Your task to perform on an android device: When is my next meeting? Image 0: 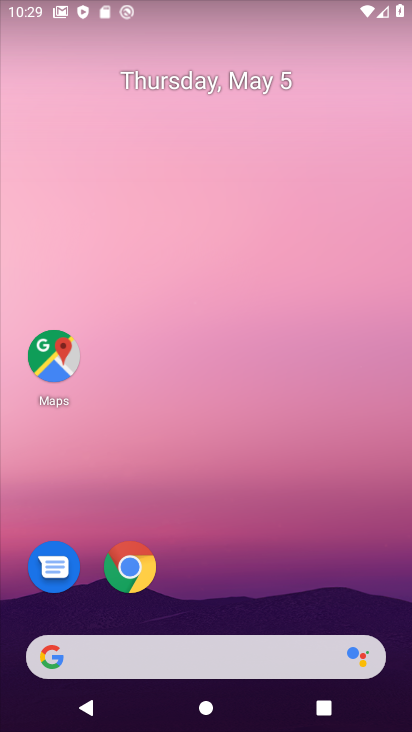
Step 0: drag from (232, 616) to (297, 64)
Your task to perform on an android device: When is my next meeting? Image 1: 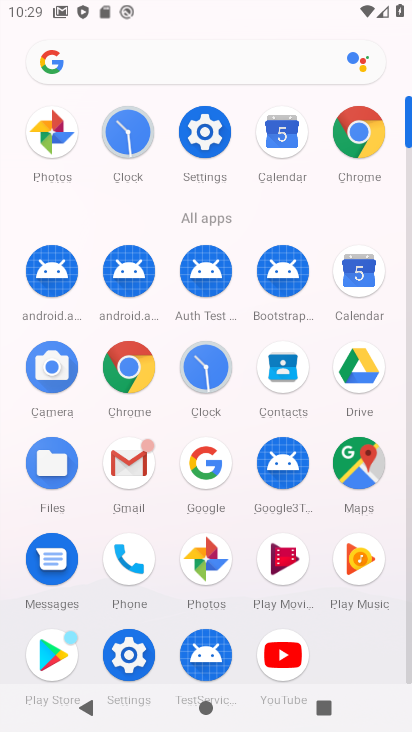
Step 1: click (346, 272)
Your task to perform on an android device: When is my next meeting? Image 2: 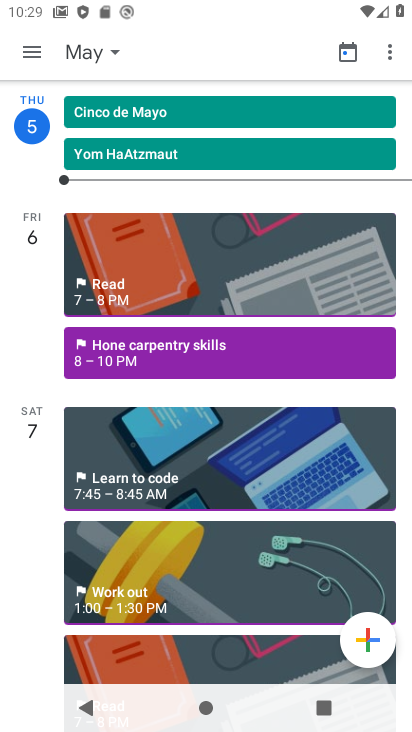
Step 2: task complete